Your task to perform on an android device: move an email to a new category in the gmail app Image 0: 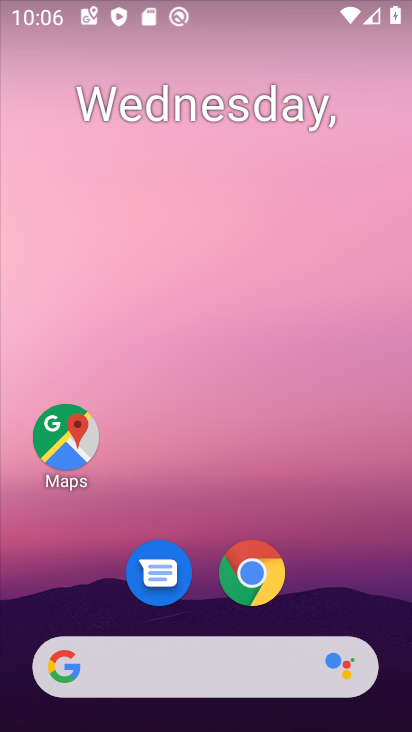
Step 0: drag from (376, 621) to (351, 171)
Your task to perform on an android device: move an email to a new category in the gmail app Image 1: 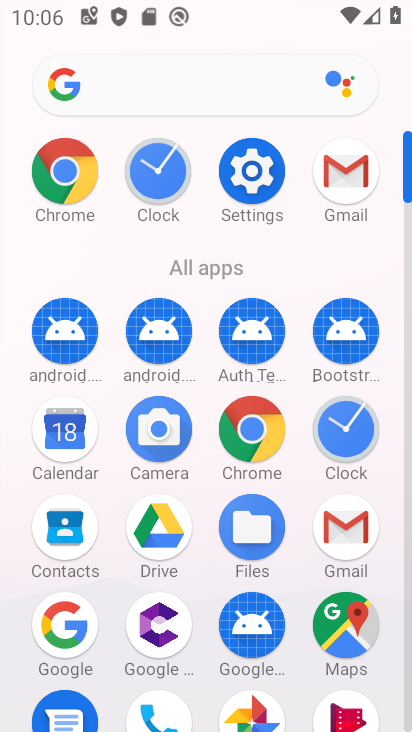
Step 1: click (354, 184)
Your task to perform on an android device: move an email to a new category in the gmail app Image 2: 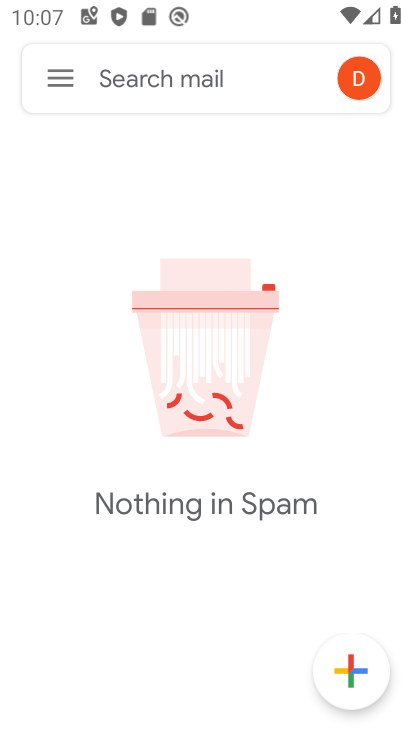
Step 2: click (57, 83)
Your task to perform on an android device: move an email to a new category in the gmail app Image 3: 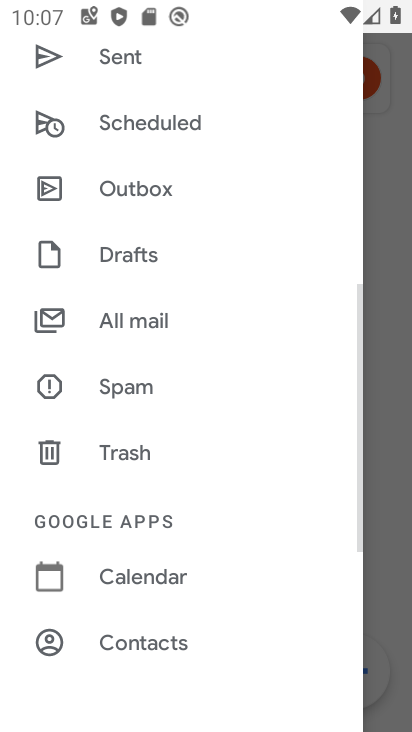
Step 3: drag from (274, 554) to (270, 424)
Your task to perform on an android device: move an email to a new category in the gmail app Image 4: 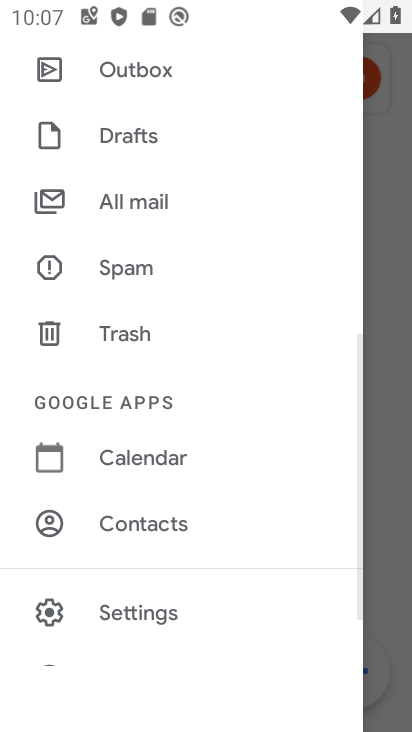
Step 4: drag from (271, 619) to (274, 481)
Your task to perform on an android device: move an email to a new category in the gmail app Image 5: 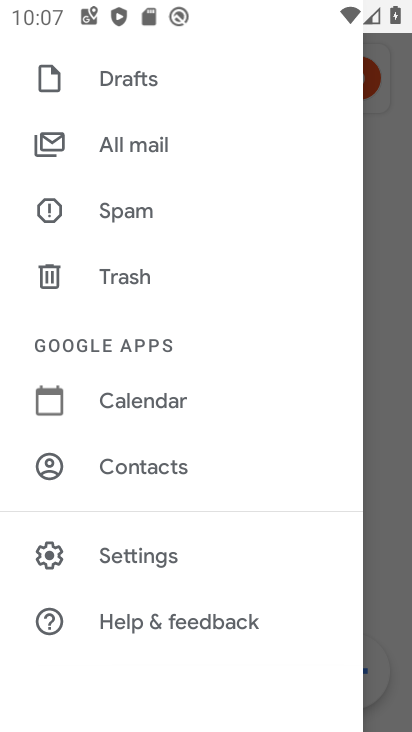
Step 5: drag from (279, 319) to (284, 455)
Your task to perform on an android device: move an email to a new category in the gmail app Image 6: 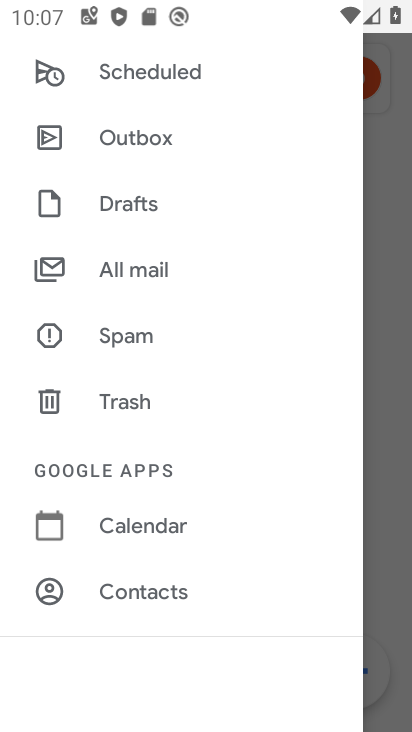
Step 6: drag from (273, 279) to (271, 392)
Your task to perform on an android device: move an email to a new category in the gmail app Image 7: 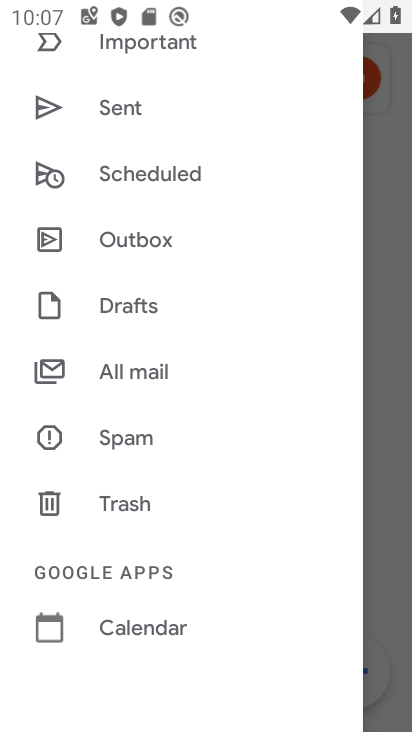
Step 7: drag from (261, 218) to (243, 384)
Your task to perform on an android device: move an email to a new category in the gmail app Image 8: 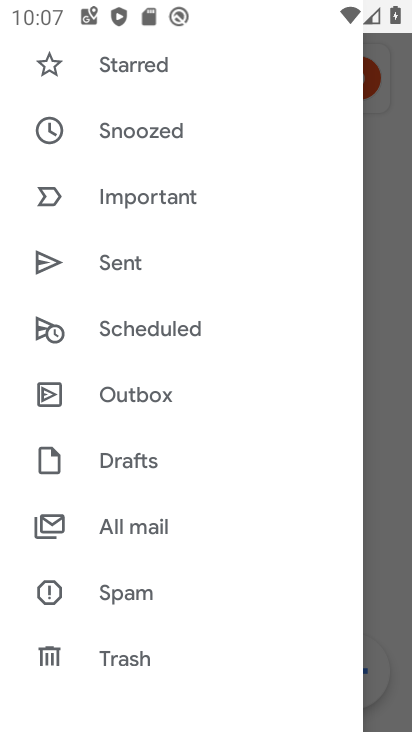
Step 8: drag from (258, 228) to (252, 328)
Your task to perform on an android device: move an email to a new category in the gmail app Image 9: 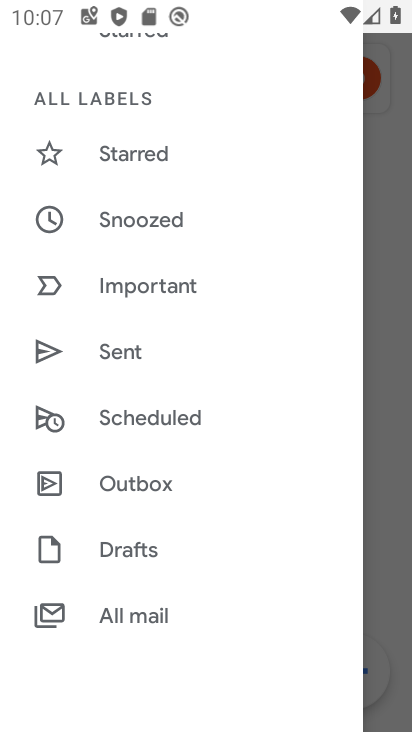
Step 9: drag from (259, 213) to (252, 313)
Your task to perform on an android device: move an email to a new category in the gmail app Image 10: 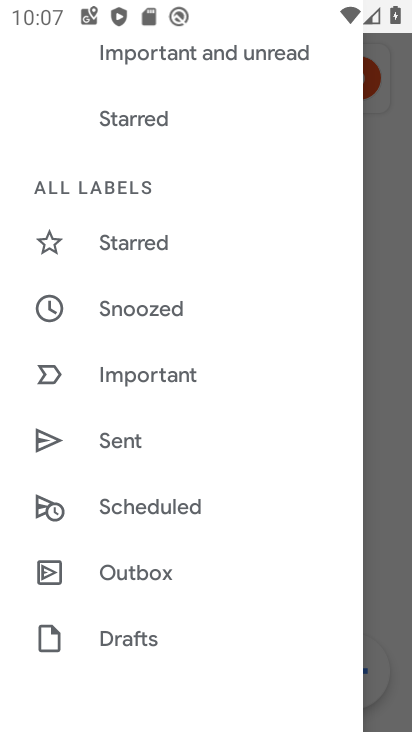
Step 10: drag from (252, 202) to (242, 327)
Your task to perform on an android device: move an email to a new category in the gmail app Image 11: 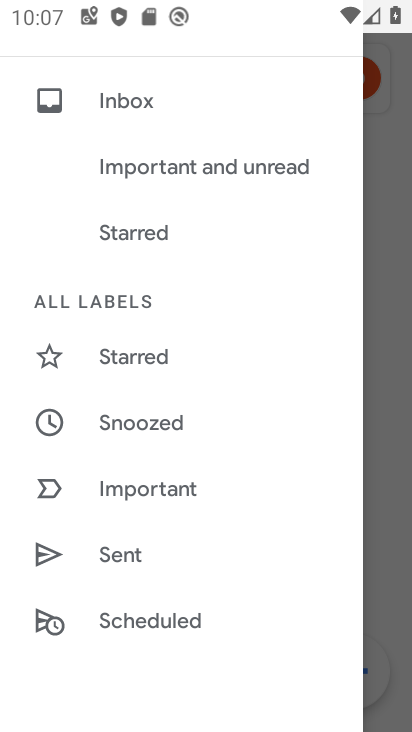
Step 11: drag from (247, 162) to (234, 282)
Your task to perform on an android device: move an email to a new category in the gmail app Image 12: 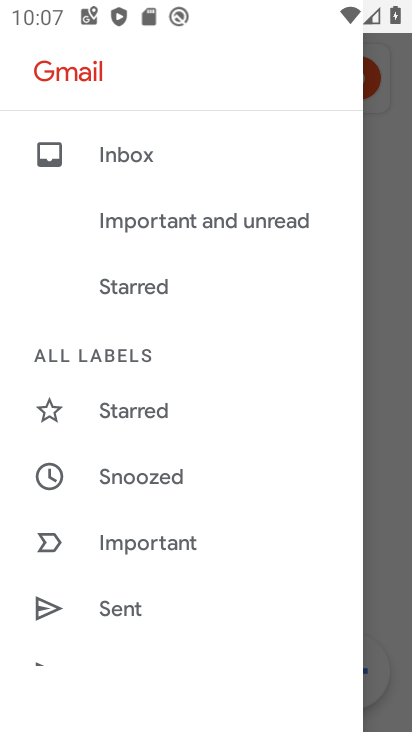
Step 12: click (129, 136)
Your task to perform on an android device: move an email to a new category in the gmail app Image 13: 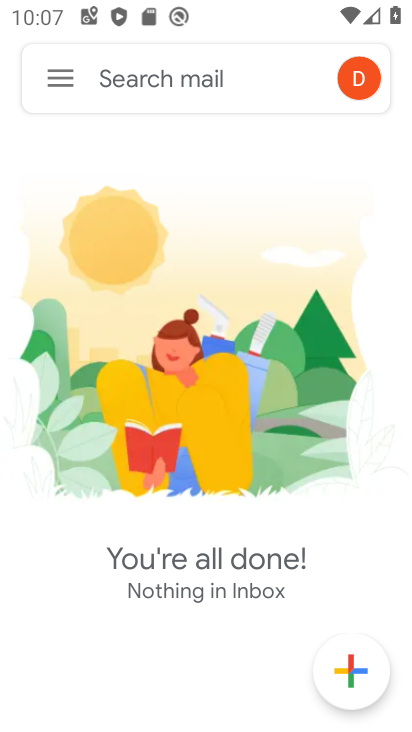
Step 13: task complete